Your task to perform on an android device: Open Google Chrome and click the shortcut for Amazon.com Image 0: 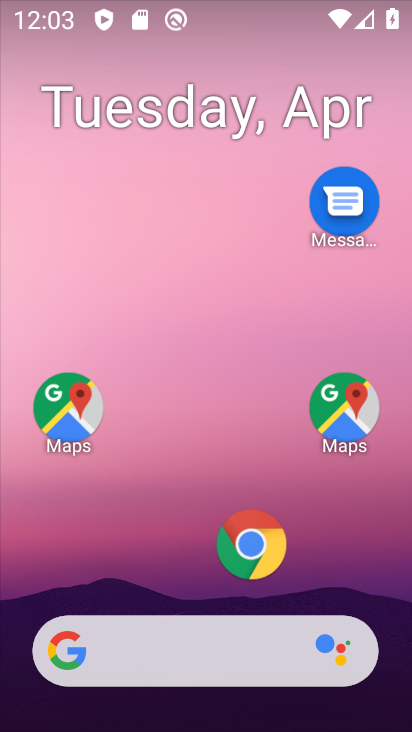
Step 0: click (266, 551)
Your task to perform on an android device: Open Google Chrome and click the shortcut for Amazon.com Image 1: 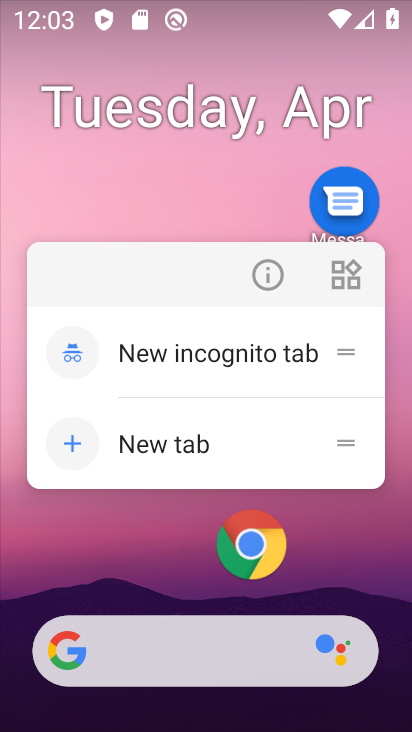
Step 1: click (267, 555)
Your task to perform on an android device: Open Google Chrome and click the shortcut for Amazon.com Image 2: 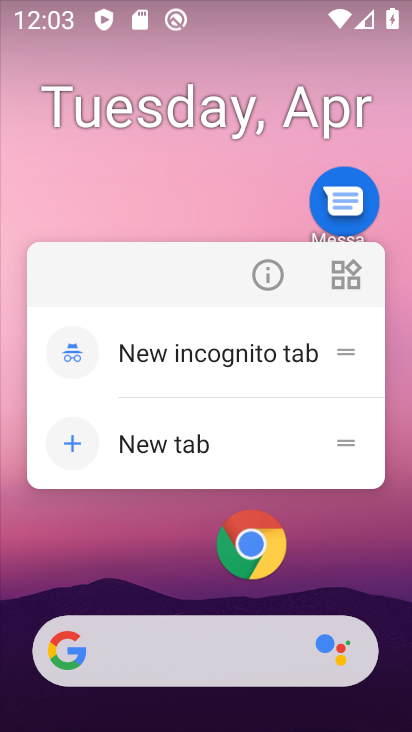
Step 2: click (258, 533)
Your task to perform on an android device: Open Google Chrome and click the shortcut for Amazon.com Image 3: 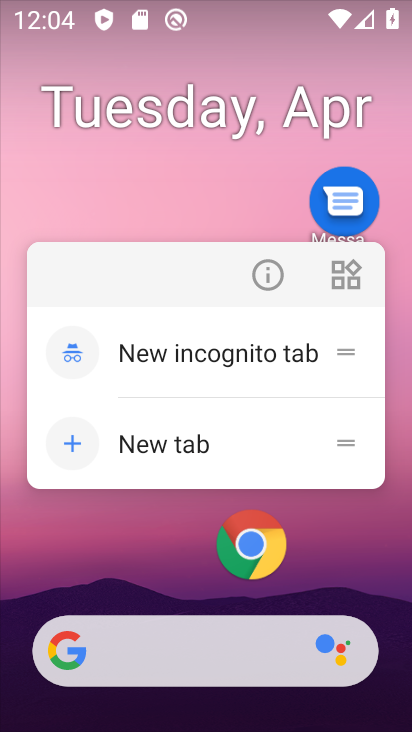
Step 3: click (256, 545)
Your task to perform on an android device: Open Google Chrome and click the shortcut for Amazon.com Image 4: 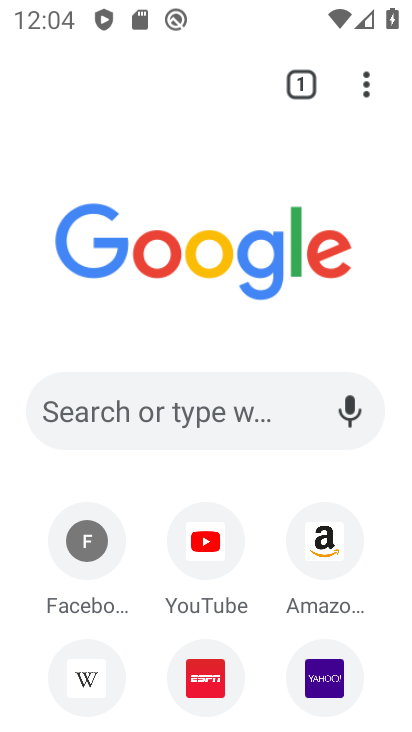
Step 4: click (315, 575)
Your task to perform on an android device: Open Google Chrome and click the shortcut for Amazon.com Image 5: 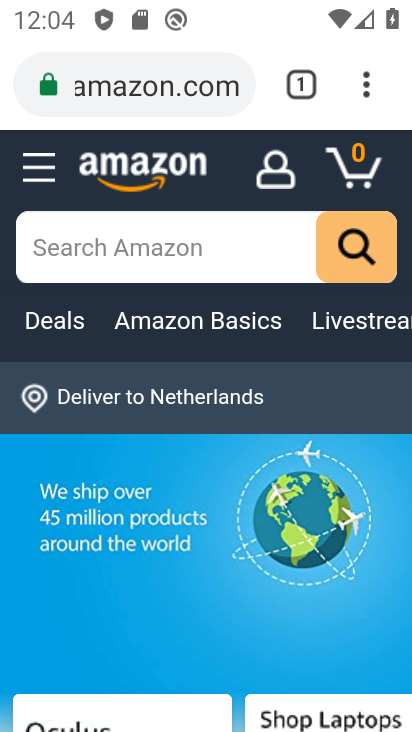
Step 5: task complete